Your task to perform on an android device: change your default location settings in chrome Image 0: 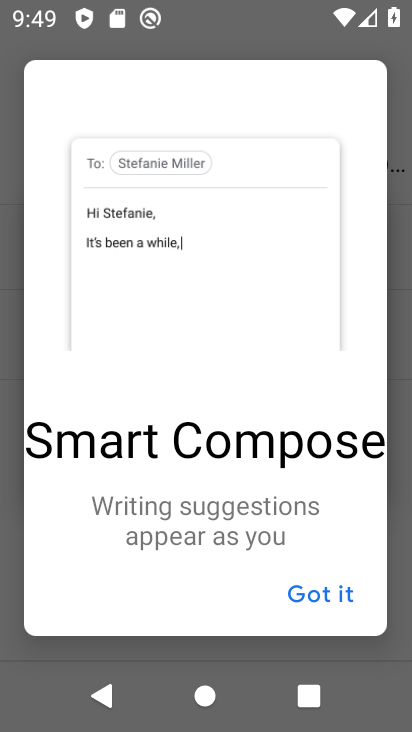
Step 0: press home button
Your task to perform on an android device: change your default location settings in chrome Image 1: 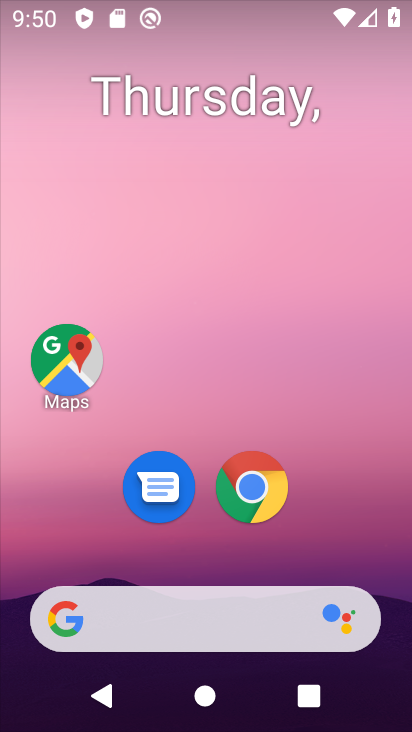
Step 1: click (253, 501)
Your task to perform on an android device: change your default location settings in chrome Image 2: 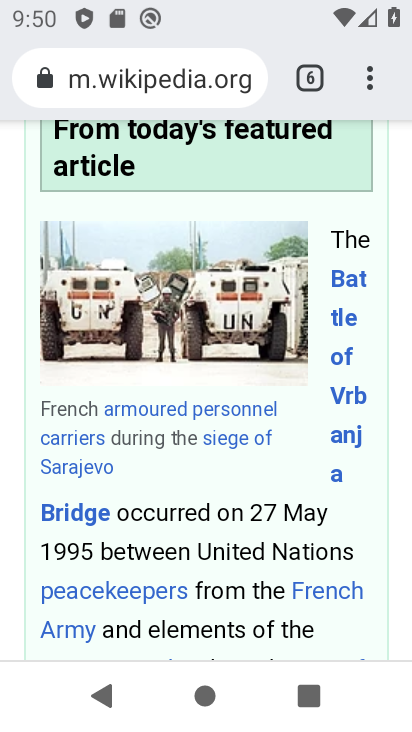
Step 2: click (369, 80)
Your task to perform on an android device: change your default location settings in chrome Image 3: 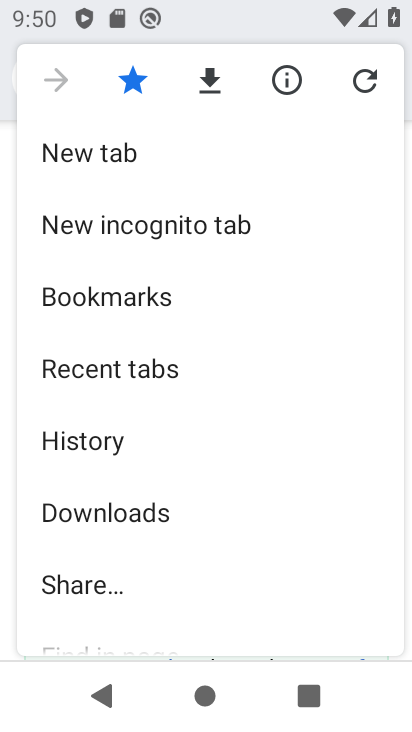
Step 3: drag from (102, 574) to (113, 138)
Your task to perform on an android device: change your default location settings in chrome Image 4: 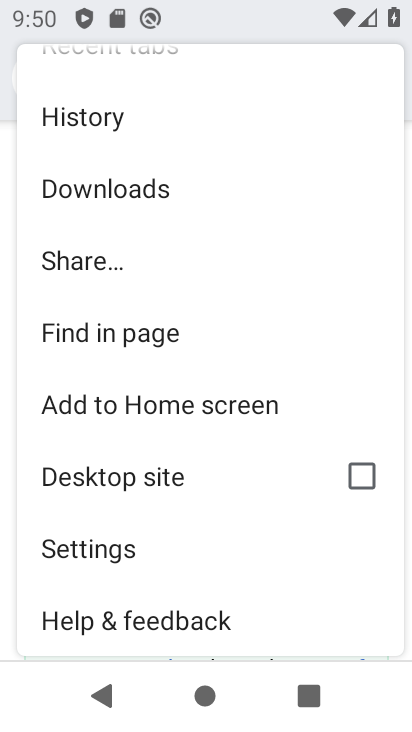
Step 4: click (97, 549)
Your task to perform on an android device: change your default location settings in chrome Image 5: 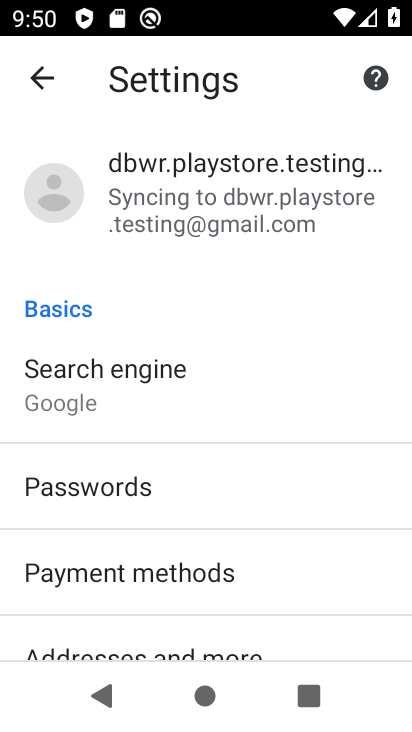
Step 5: drag from (217, 607) to (114, 124)
Your task to perform on an android device: change your default location settings in chrome Image 6: 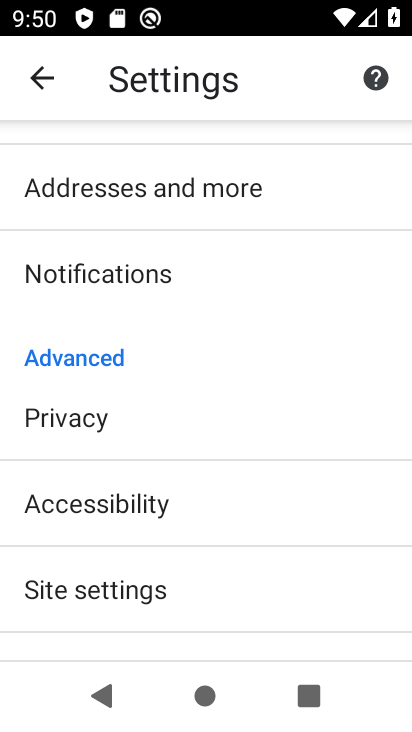
Step 6: drag from (187, 555) to (190, 335)
Your task to perform on an android device: change your default location settings in chrome Image 7: 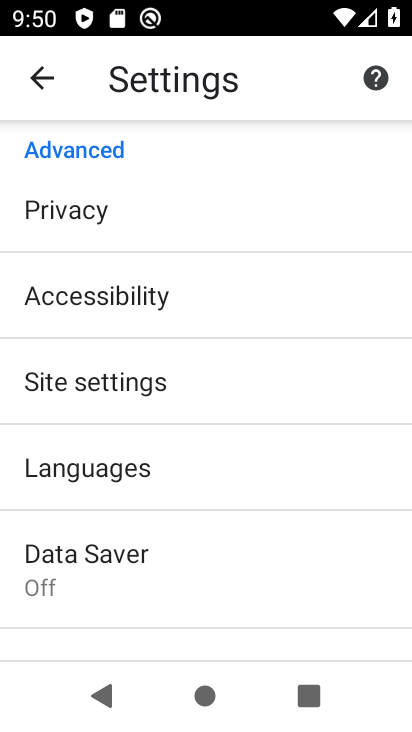
Step 7: click (122, 376)
Your task to perform on an android device: change your default location settings in chrome Image 8: 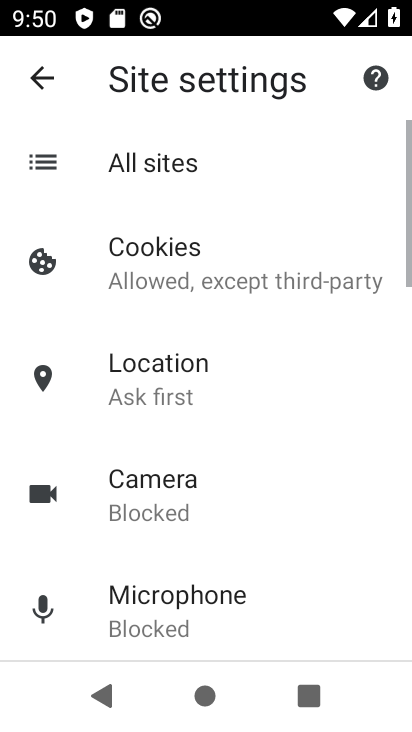
Step 8: click (122, 376)
Your task to perform on an android device: change your default location settings in chrome Image 9: 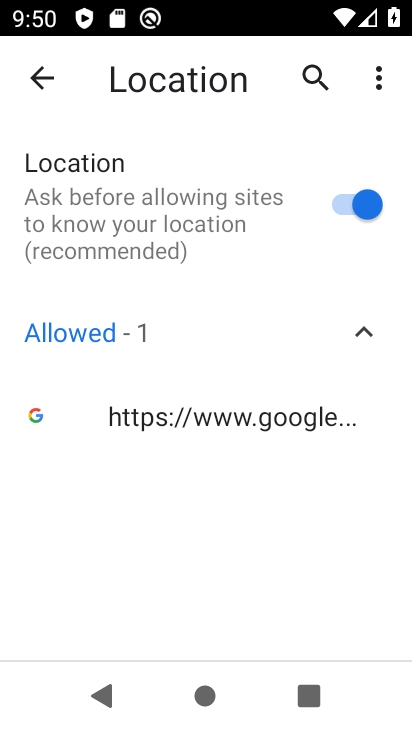
Step 9: click (359, 205)
Your task to perform on an android device: change your default location settings in chrome Image 10: 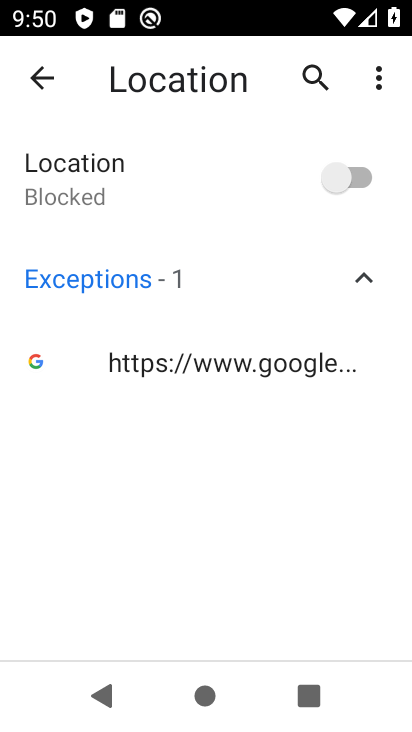
Step 10: task complete